Your task to perform on an android device: Go to Android settings Image 0: 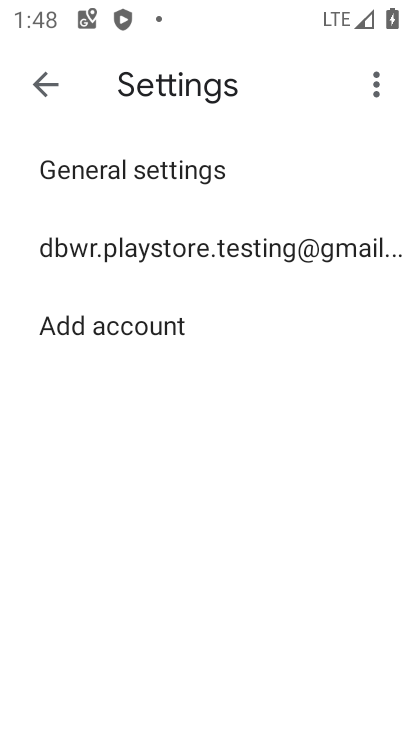
Step 0: press home button
Your task to perform on an android device: Go to Android settings Image 1: 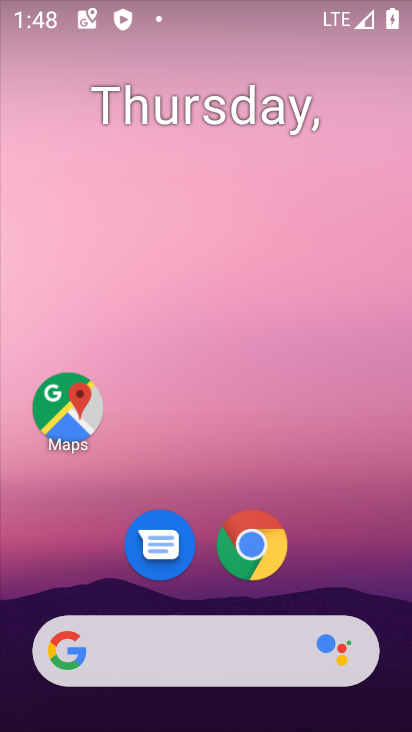
Step 1: drag from (297, 710) to (332, 13)
Your task to perform on an android device: Go to Android settings Image 2: 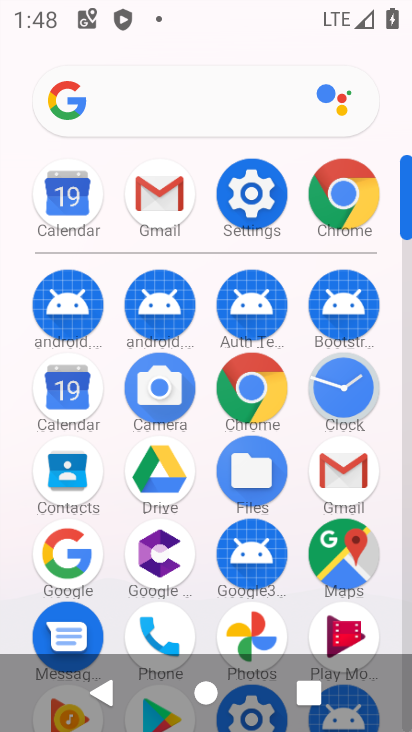
Step 2: click (247, 192)
Your task to perform on an android device: Go to Android settings Image 3: 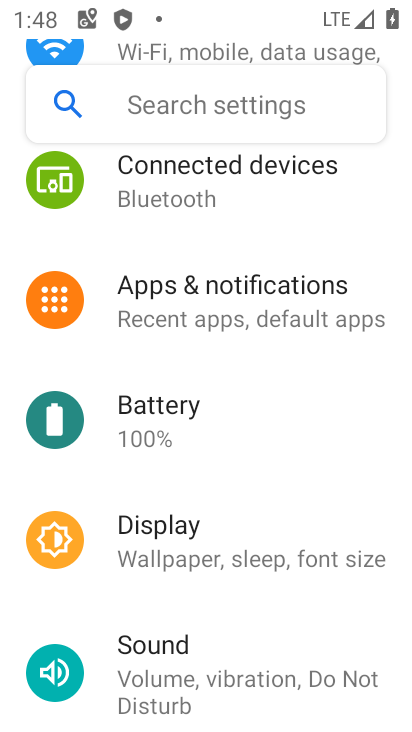
Step 3: task complete